Your task to perform on an android device: turn on the 12-hour format for clock Image 0: 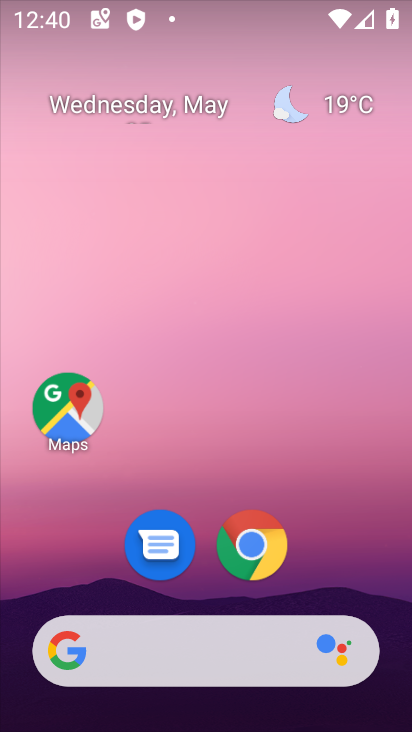
Step 0: drag from (203, 585) to (207, 196)
Your task to perform on an android device: turn on the 12-hour format for clock Image 1: 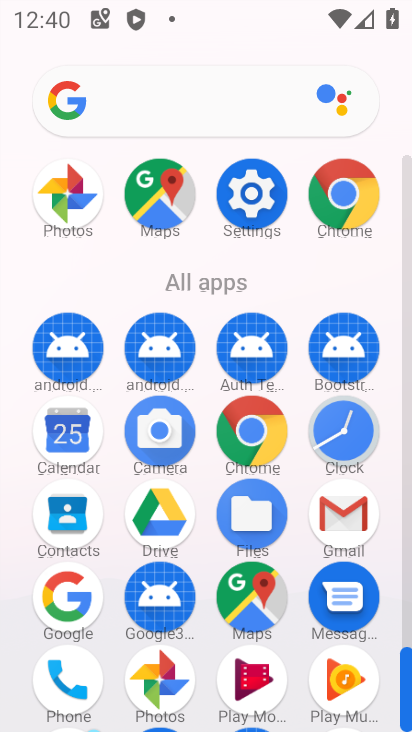
Step 1: click (260, 172)
Your task to perform on an android device: turn on the 12-hour format for clock Image 2: 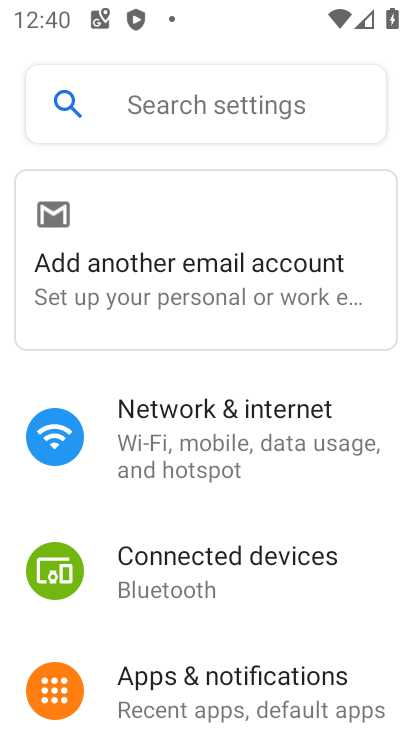
Step 2: press home button
Your task to perform on an android device: turn on the 12-hour format for clock Image 3: 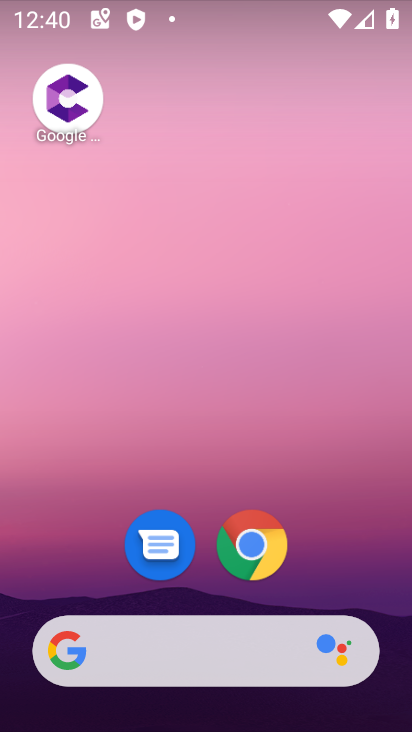
Step 3: drag from (203, 588) to (213, 140)
Your task to perform on an android device: turn on the 12-hour format for clock Image 4: 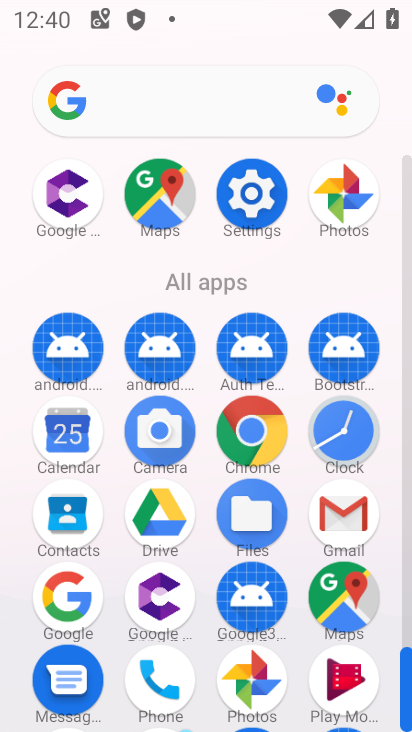
Step 4: click (332, 435)
Your task to perform on an android device: turn on the 12-hour format for clock Image 5: 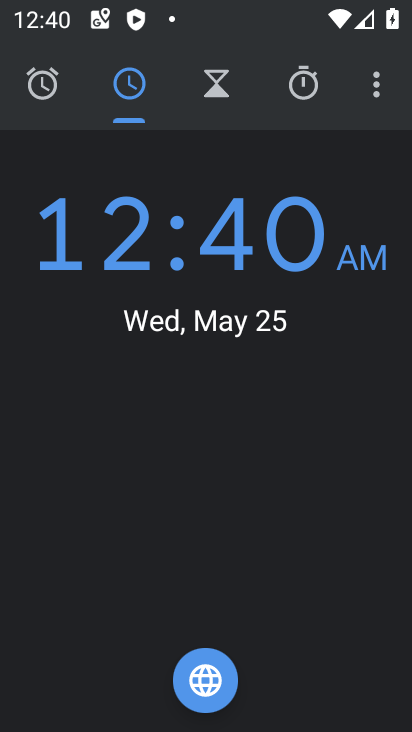
Step 5: click (394, 82)
Your task to perform on an android device: turn on the 12-hour format for clock Image 6: 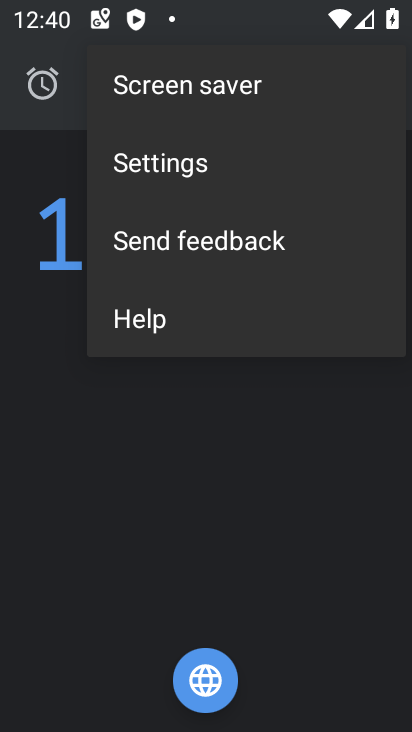
Step 6: click (394, 82)
Your task to perform on an android device: turn on the 12-hour format for clock Image 7: 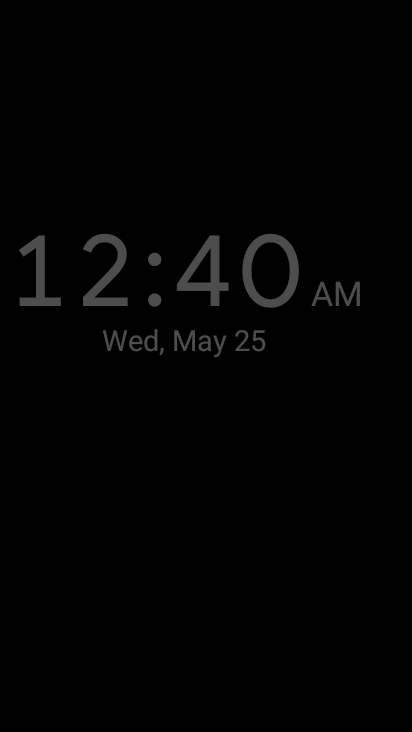
Step 7: click (221, 170)
Your task to perform on an android device: turn on the 12-hour format for clock Image 8: 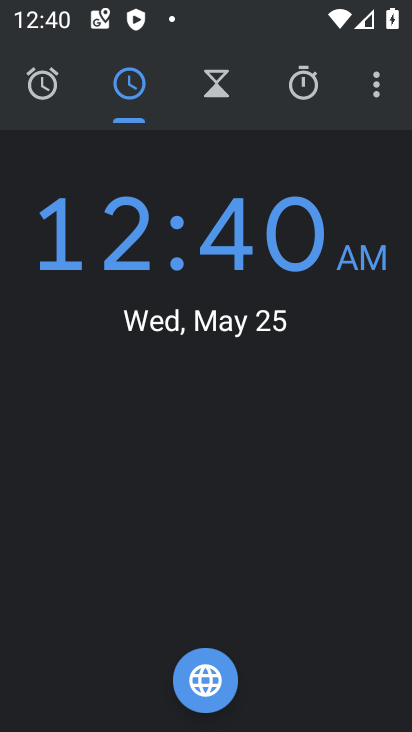
Step 8: click (381, 90)
Your task to perform on an android device: turn on the 12-hour format for clock Image 9: 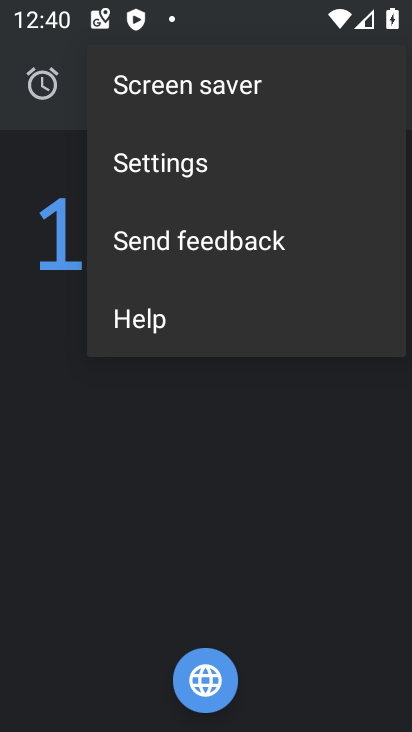
Step 9: click (269, 159)
Your task to perform on an android device: turn on the 12-hour format for clock Image 10: 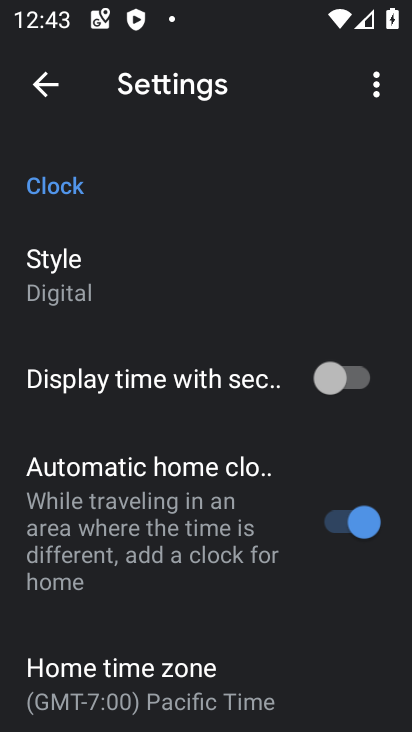
Step 10: task complete